Your task to perform on an android device: turn on wifi Image 0: 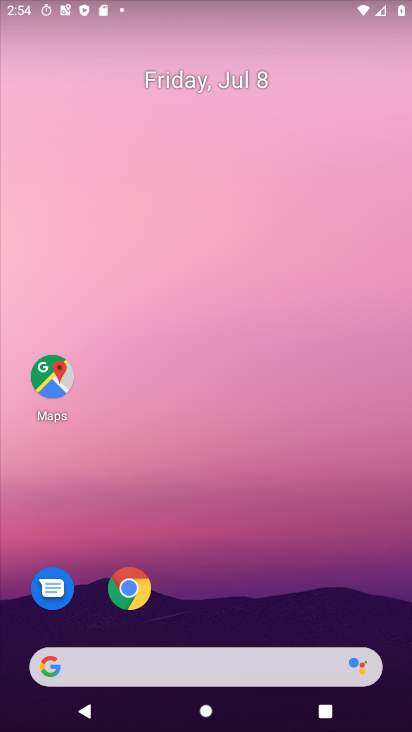
Step 0: press home button
Your task to perform on an android device: turn on wifi Image 1: 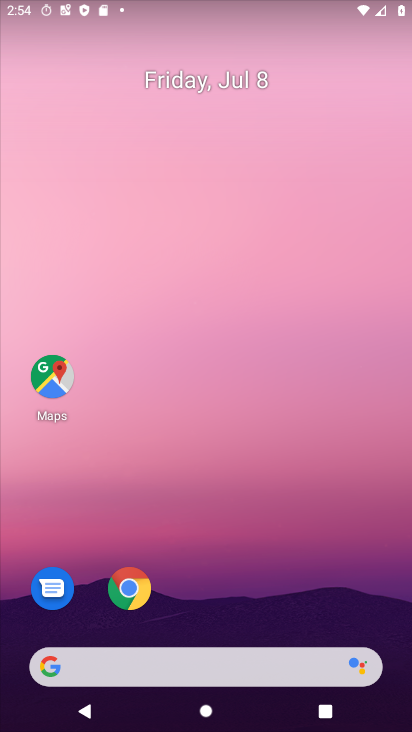
Step 1: task complete